Your task to perform on an android device: open app "ZOOM Cloud Meetings" Image 0: 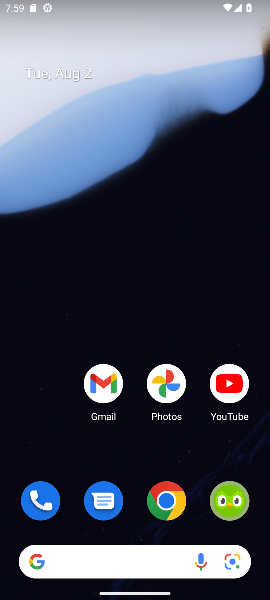
Step 0: drag from (162, 506) to (139, 143)
Your task to perform on an android device: open app "ZOOM Cloud Meetings" Image 1: 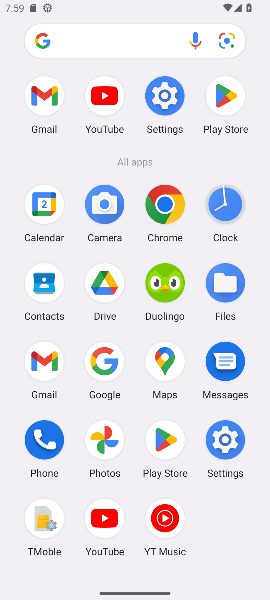
Step 1: click (223, 93)
Your task to perform on an android device: open app "ZOOM Cloud Meetings" Image 2: 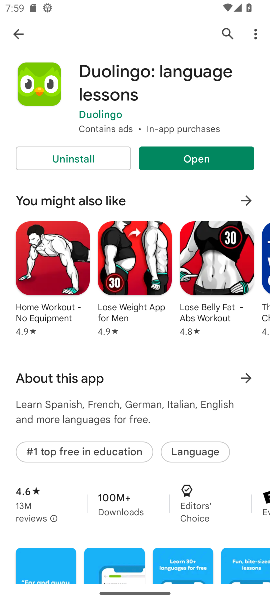
Step 2: click (223, 33)
Your task to perform on an android device: open app "ZOOM Cloud Meetings" Image 3: 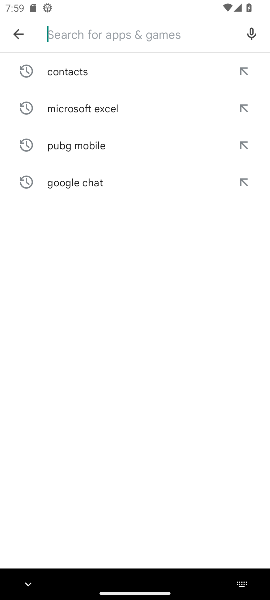
Step 3: type "ZOOM Cloud Meetings"
Your task to perform on an android device: open app "ZOOM Cloud Meetings" Image 4: 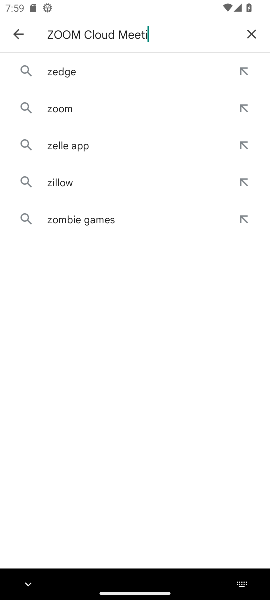
Step 4: type ""
Your task to perform on an android device: open app "ZOOM Cloud Meetings" Image 5: 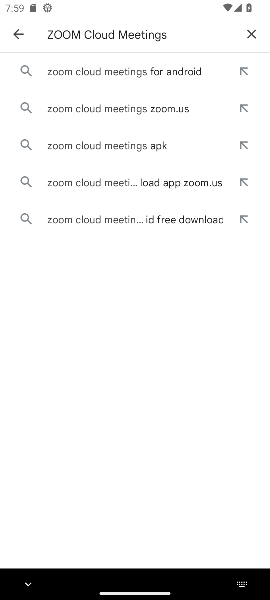
Step 5: type ""
Your task to perform on an android device: open app "ZOOM Cloud Meetings" Image 6: 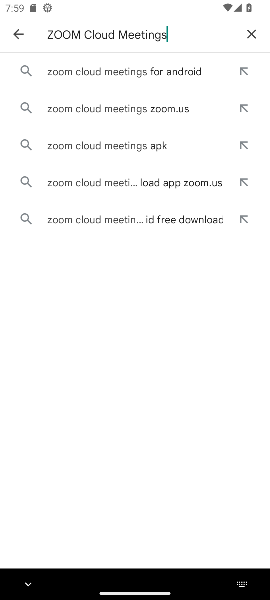
Step 6: type ""
Your task to perform on an android device: open app "ZOOM Cloud Meetings" Image 7: 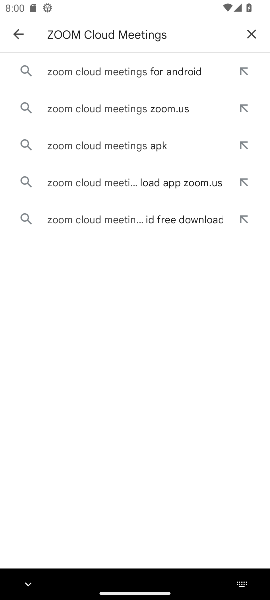
Step 7: click (158, 64)
Your task to perform on an android device: open app "ZOOM Cloud Meetings" Image 8: 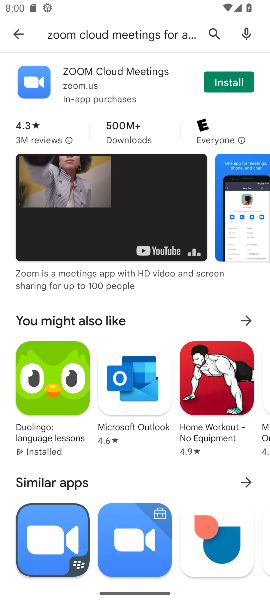
Step 8: task complete